Your task to perform on an android device: Go to CNN.com Image 0: 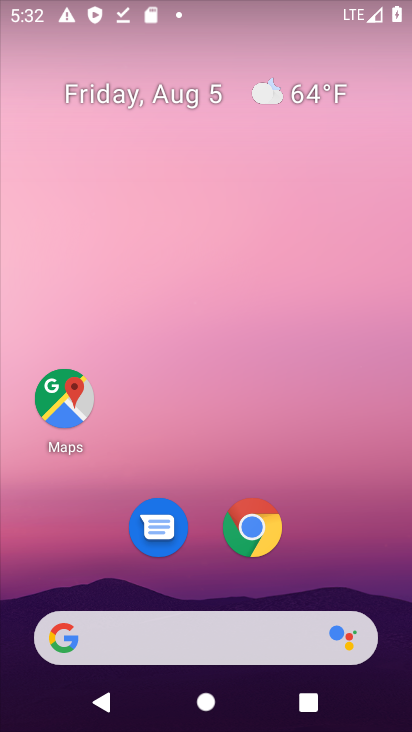
Step 0: drag from (212, 569) to (218, 386)
Your task to perform on an android device: Go to CNN.com Image 1: 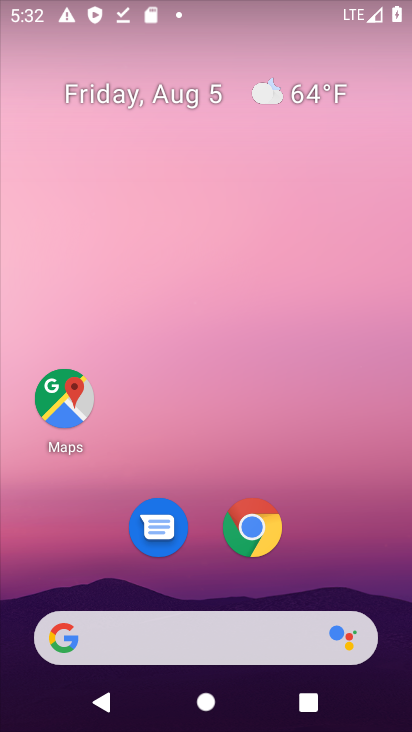
Step 1: drag from (212, 564) to (251, 251)
Your task to perform on an android device: Go to CNN.com Image 2: 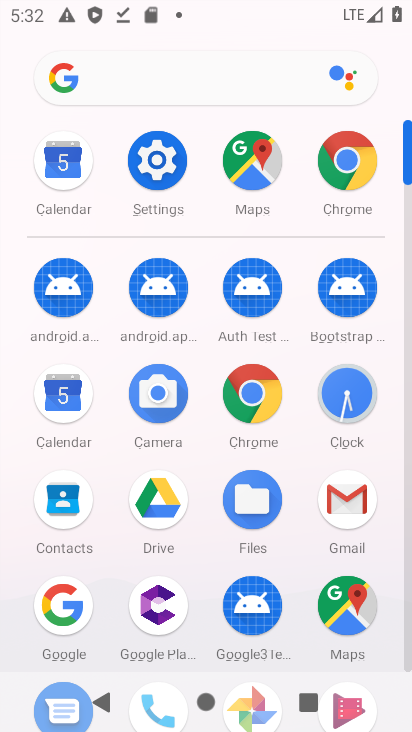
Step 2: click (138, 82)
Your task to perform on an android device: Go to CNN.com Image 3: 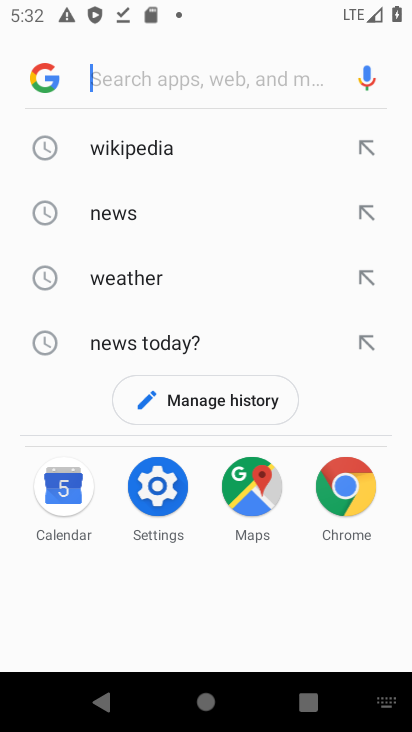
Step 3: type "CNN.com"
Your task to perform on an android device: Go to CNN.com Image 4: 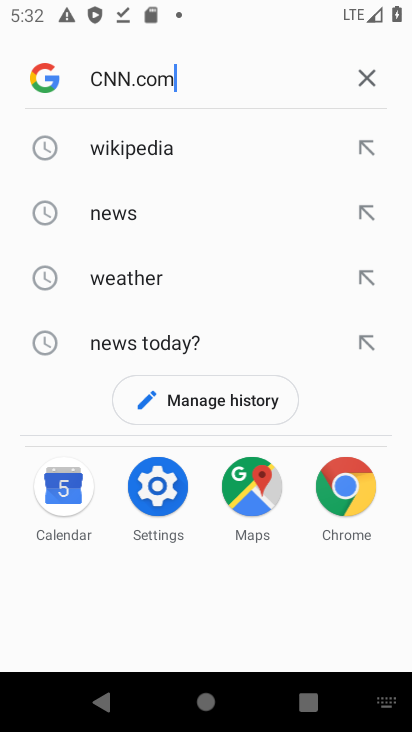
Step 4: type ""
Your task to perform on an android device: Go to CNN.com Image 5: 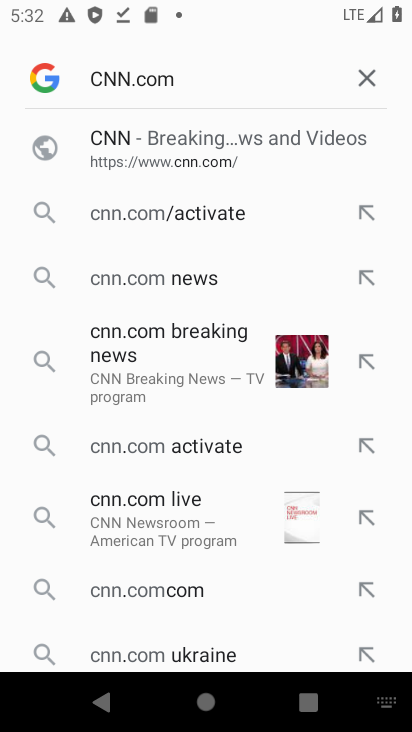
Step 5: click (128, 140)
Your task to perform on an android device: Go to CNN.com Image 6: 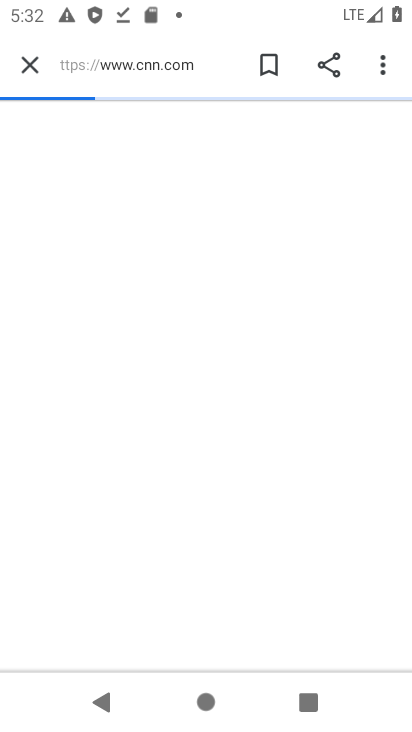
Step 6: task complete